Your task to perform on an android device: turn pop-ups on in chrome Image 0: 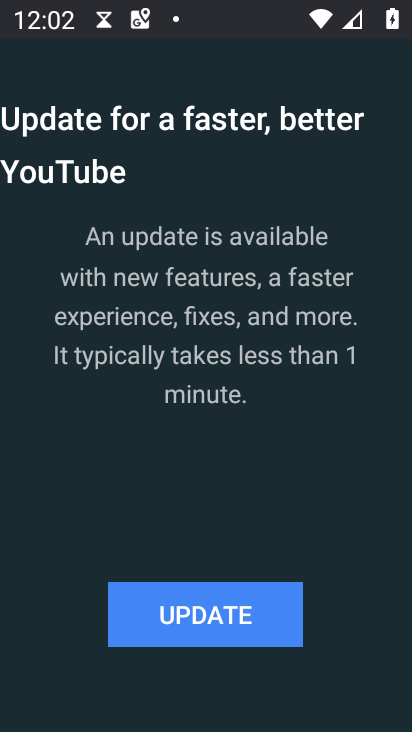
Step 0: press home button
Your task to perform on an android device: turn pop-ups on in chrome Image 1: 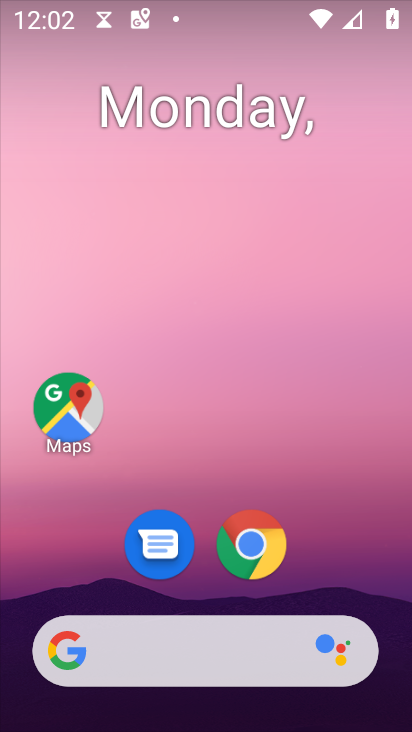
Step 1: click (252, 537)
Your task to perform on an android device: turn pop-ups on in chrome Image 2: 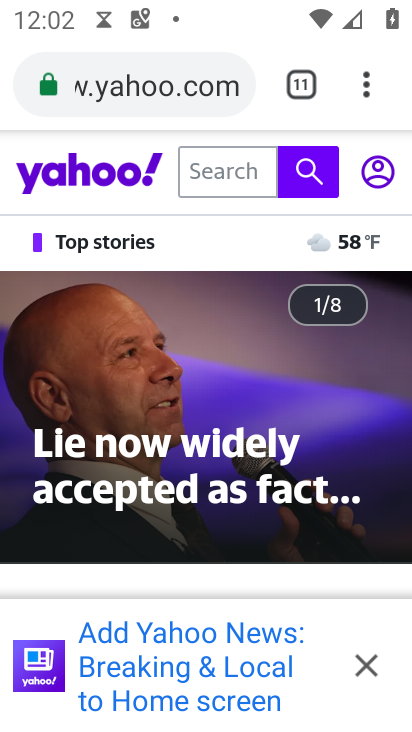
Step 2: click (375, 78)
Your task to perform on an android device: turn pop-ups on in chrome Image 3: 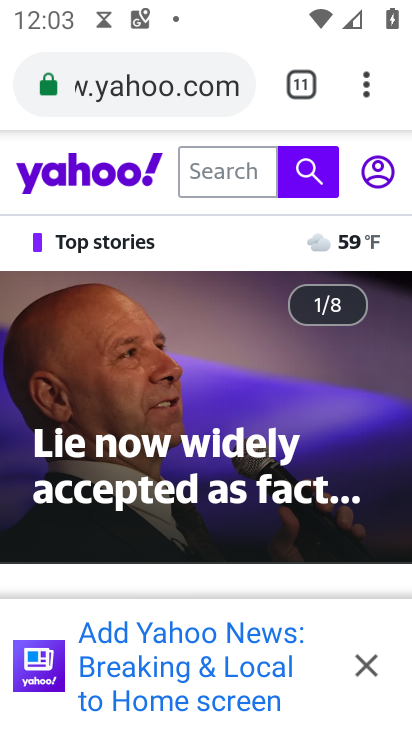
Step 3: click (381, 82)
Your task to perform on an android device: turn pop-ups on in chrome Image 4: 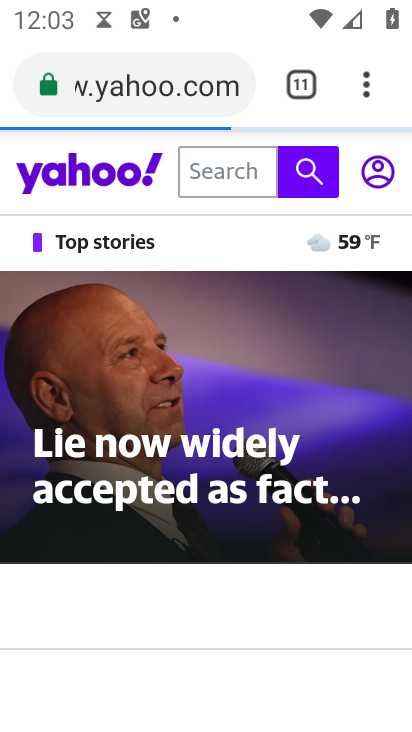
Step 4: click (363, 73)
Your task to perform on an android device: turn pop-ups on in chrome Image 5: 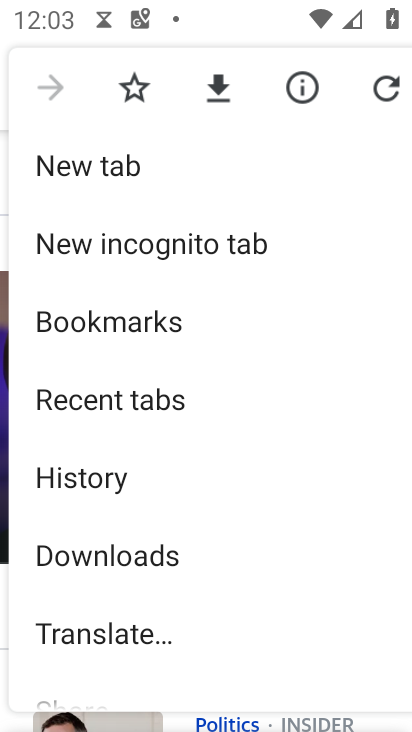
Step 5: drag from (224, 584) to (253, 186)
Your task to perform on an android device: turn pop-ups on in chrome Image 6: 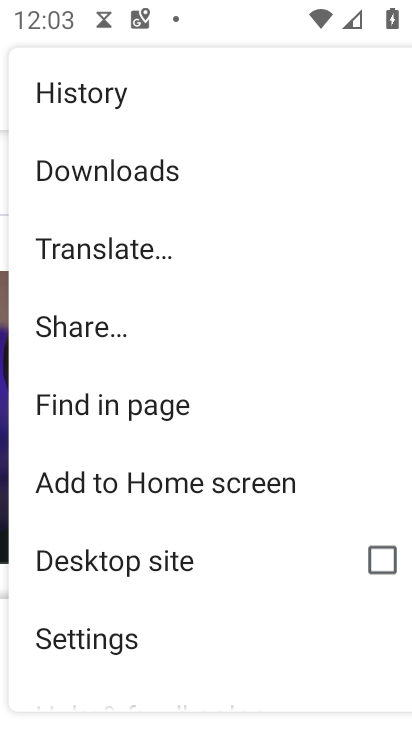
Step 6: click (151, 630)
Your task to perform on an android device: turn pop-ups on in chrome Image 7: 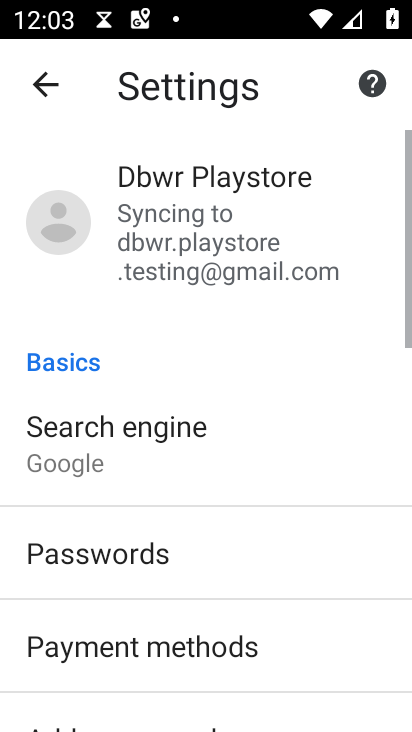
Step 7: drag from (147, 561) to (261, 150)
Your task to perform on an android device: turn pop-ups on in chrome Image 8: 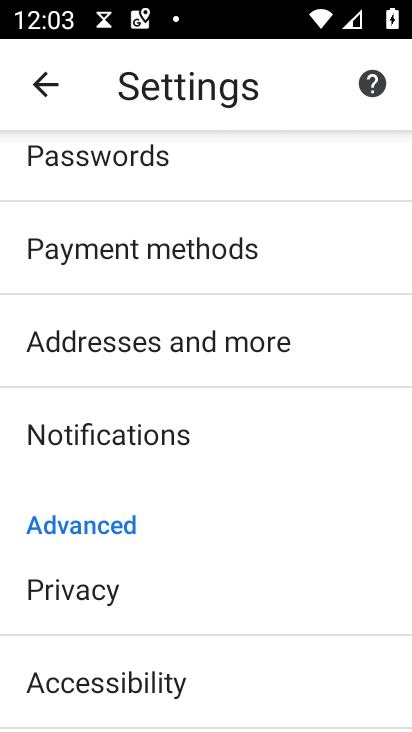
Step 8: drag from (186, 581) to (258, 195)
Your task to perform on an android device: turn pop-ups on in chrome Image 9: 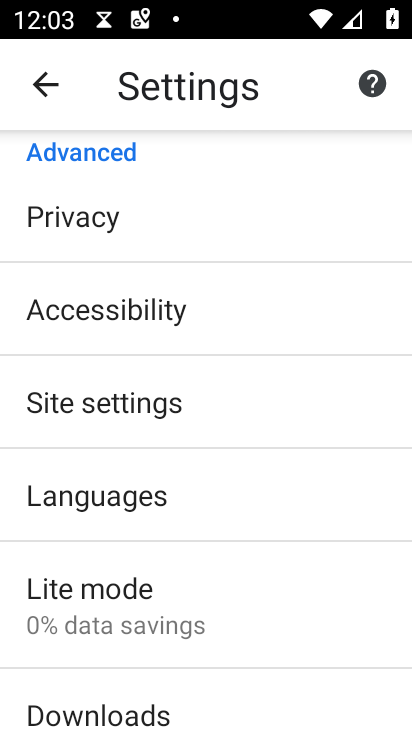
Step 9: drag from (178, 569) to (246, 328)
Your task to perform on an android device: turn pop-ups on in chrome Image 10: 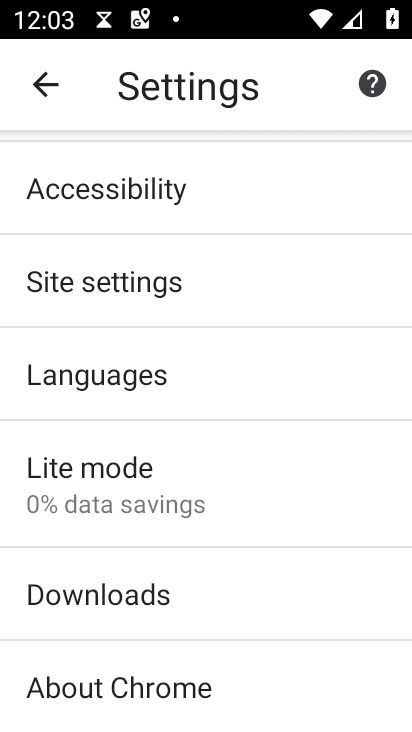
Step 10: click (204, 272)
Your task to perform on an android device: turn pop-ups on in chrome Image 11: 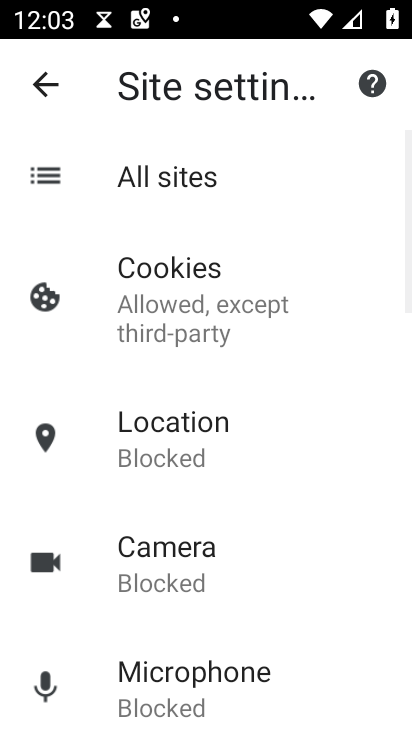
Step 11: drag from (261, 669) to (317, 301)
Your task to perform on an android device: turn pop-ups on in chrome Image 12: 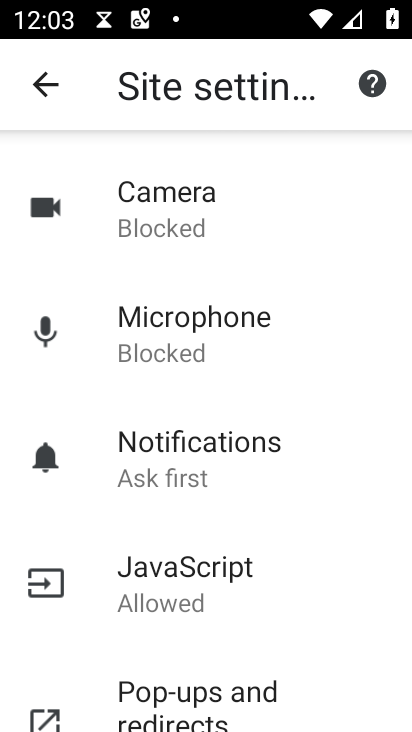
Step 12: drag from (258, 617) to (270, 483)
Your task to perform on an android device: turn pop-ups on in chrome Image 13: 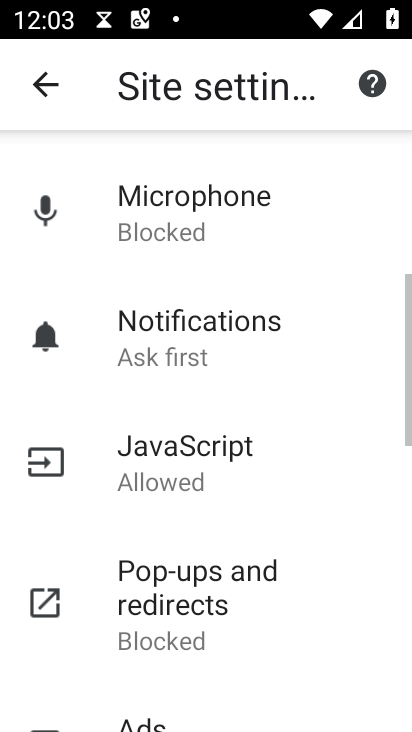
Step 13: click (204, 586)
Your task to perform on an android device: turn pop-ups on in chrome Image 14: 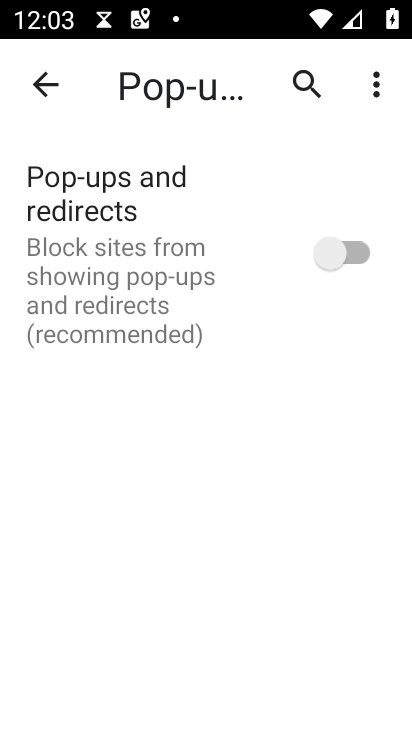
Step 14: click (363, 228)
Your task to perform on an android device: turn pop-ups on in chrome Image 15: 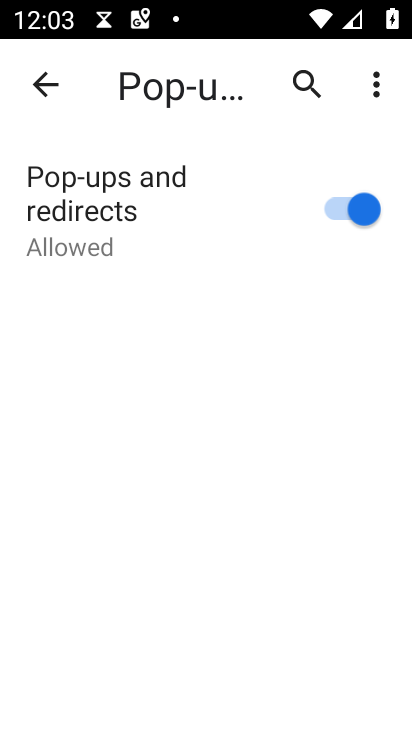
Step 15: task complete